Your task to perform on an android device: turn on the 24-hour format for clock Image 0: 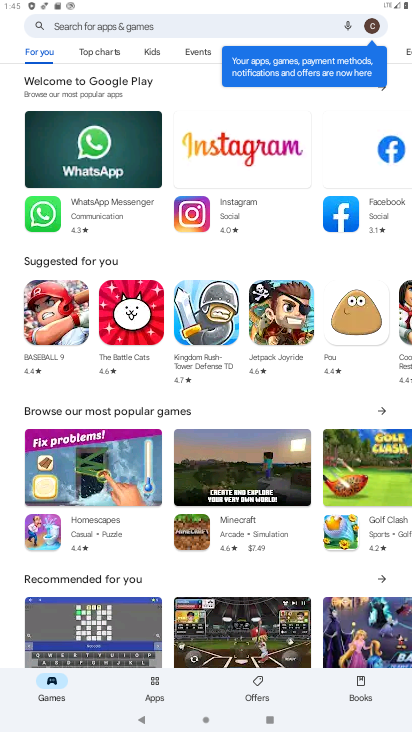
Step 0: press home button
Your task to perform on an android device: turn on the 24-hour format for clock Image 1: 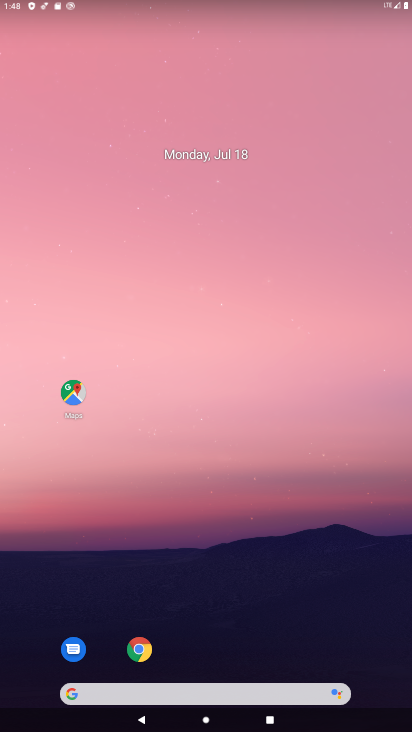
Step 1: drag from (298, 708) to (359, 52)
Your task to perform on an android device: turn on the 24-hour format for clock Image 2: 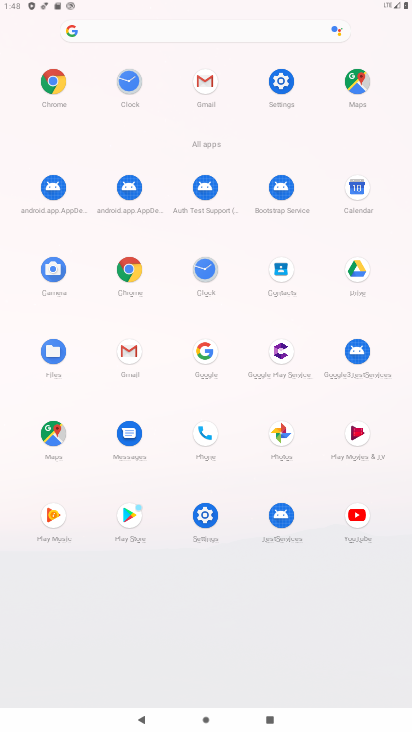
Step 2: click (199, 276)
Your task to perform on an android device: turn on the 24-hour format for clock Image 3: 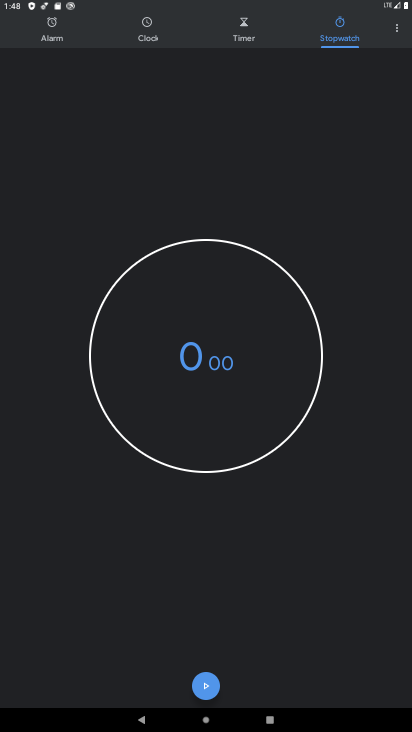
Step 3: click (399, 28)
Your task to perform on an android device: turn on the 24-hour format for clock Image 4: 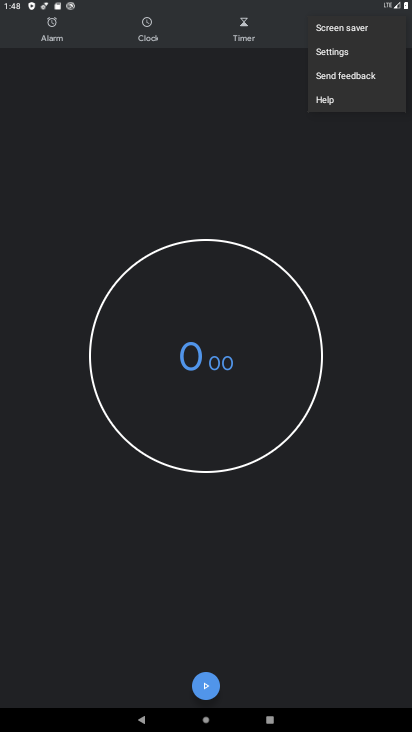
Step 4: click (346, 52)
Your task to perform on an android device: turn on the 24-hour format for clock Image 5: 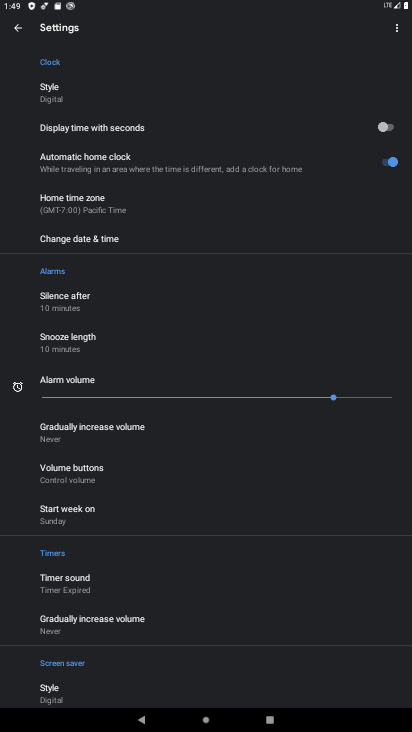
Step 5: click (101, 246)
Your task to perform on an android device: turn on the 24-hour format for clock Image 6: 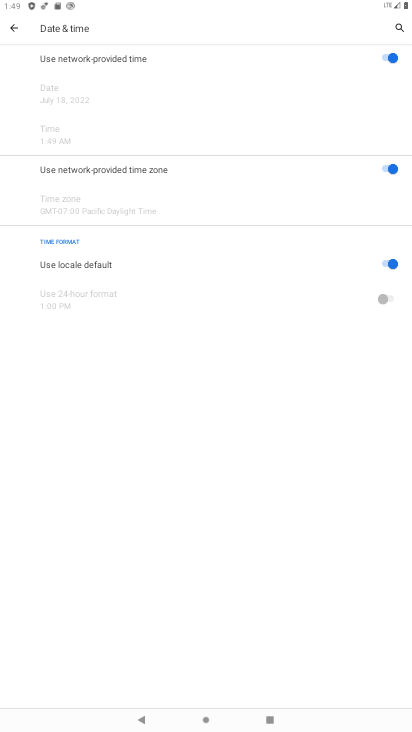
Step 6: click (392, 261)
Your task to perform on an android device: turn on the 24-hour format for clock Image 7: 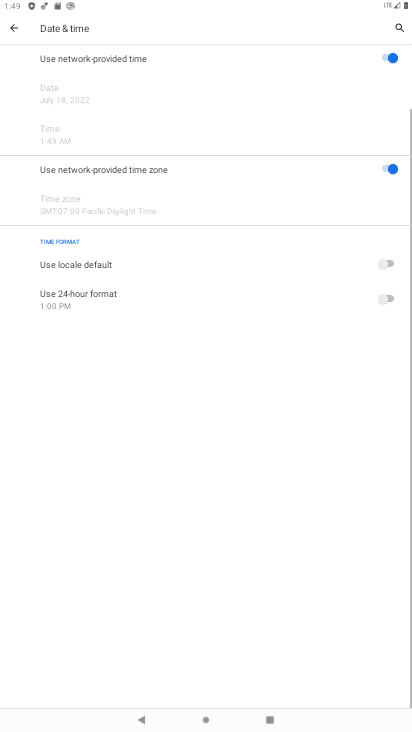
Step 7: click (383, 297)
Your task to perform on an android device: turn on the 24-hour format for clock Image 8: 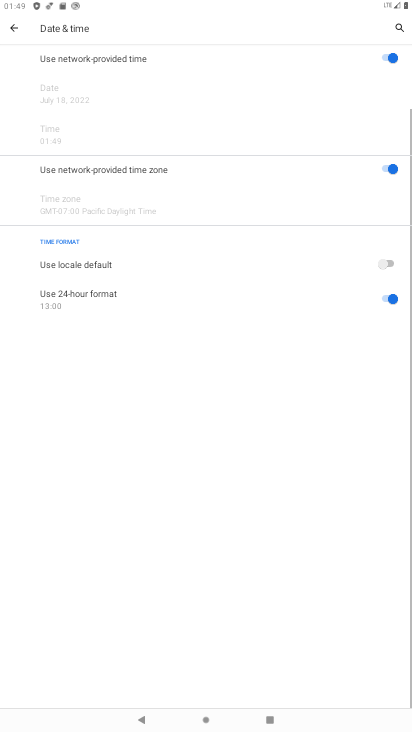
Step 8: task complete